Your task to perform on an android device: Go to CNN.com Image 0: 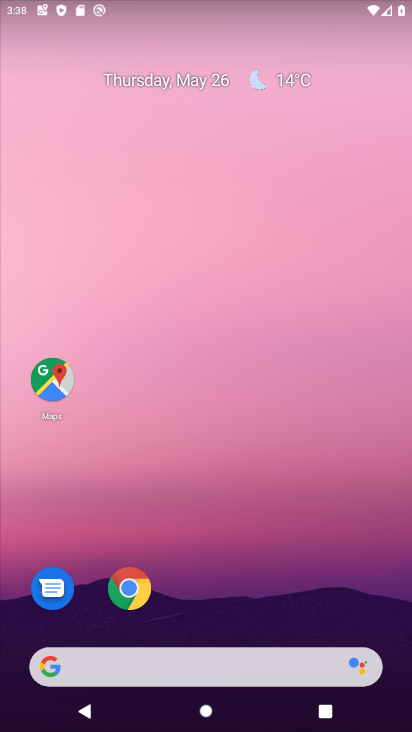
Step 0: click (176, 658)
Your task to perform on an android device: Go to CNN.com Image 1: 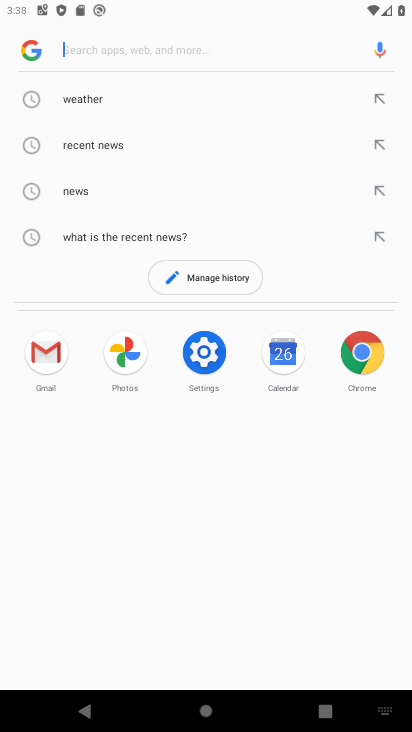
Step 1: type "cnn.com"
Your task to perform on an android device: Go to CNN.com Image 2: 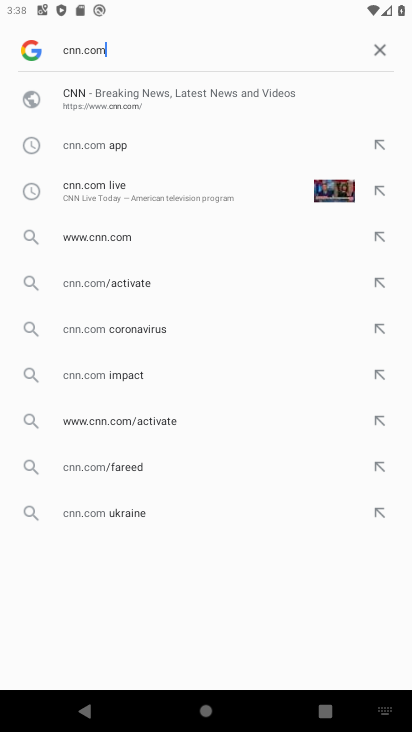
Step 2: click (89, 92)
Your task to perform on an android device: Go to CNN.com Image 3: 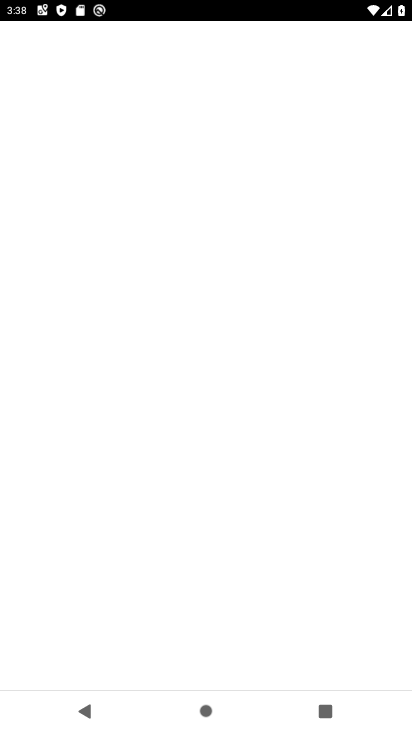
Step 3: task complete